Your task to perform on an android device: Is it going to rain this weekend? Image 0: 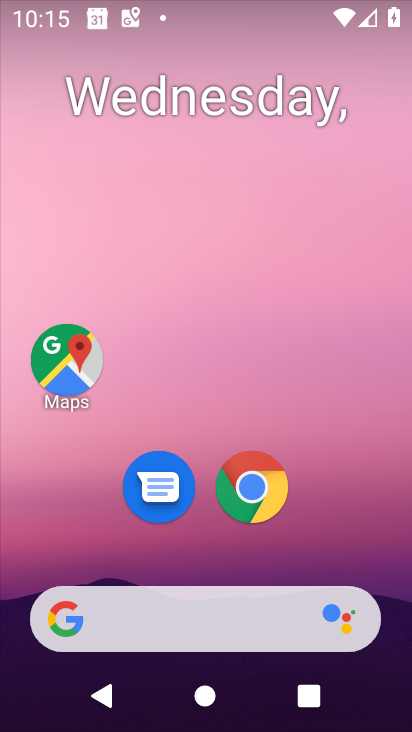
Step 0: click (236, 616)
Your task to perform on an android device: Is it going to rain this weekend? Image 1: 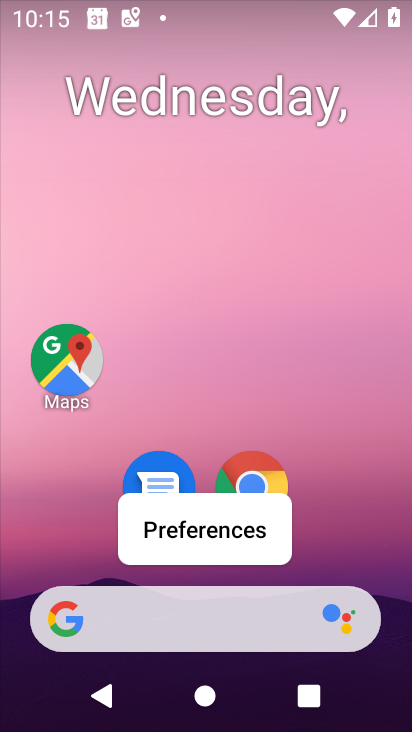
Step 1: click (236, 615)
Your task to perform on an android device: Is it going to rain this weekend? Image 2: 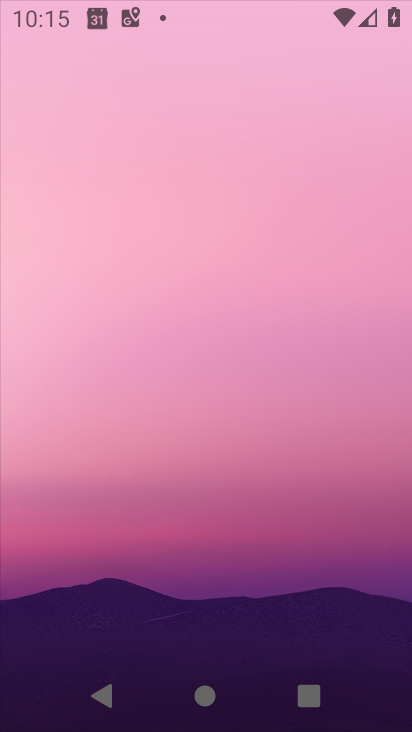
Step 2: click (204, 618)
Your task to perform on an android device: Is it going to rain this weekend? Image 3: 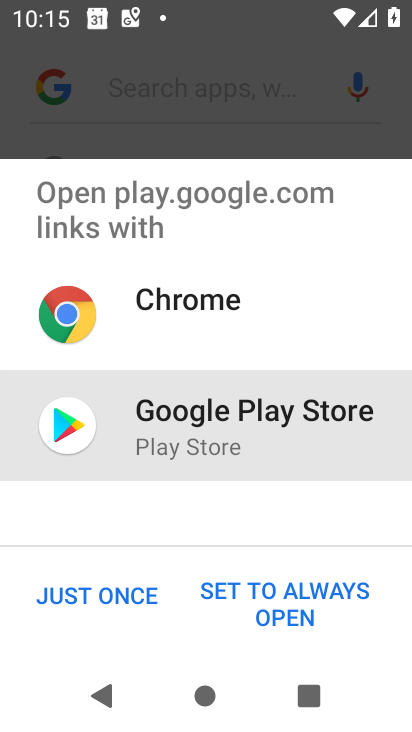
Step 3: press home button
Your task to perform on an android device: Is it going to rain this weekend? Image 4: 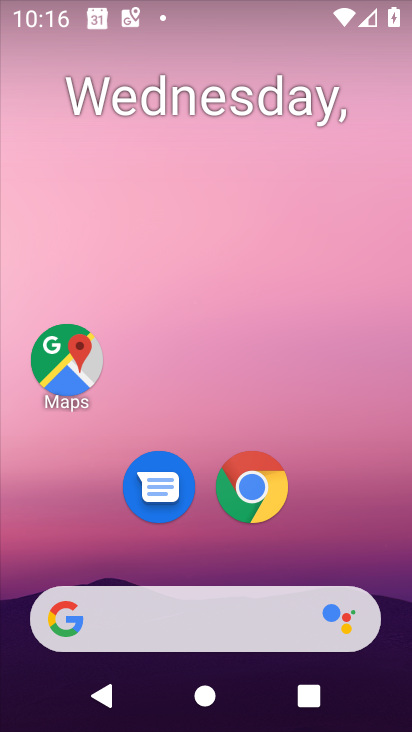
Step 4: click (122, 635)
Your task to perform on an android device: Is it going to rain this weekend? Image 5: 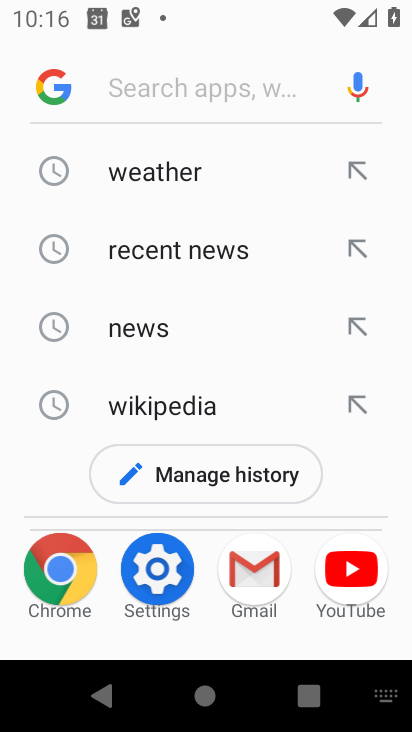
Step 5: type "Is it going to rain this weekend?"
Your task to perform on an android device: Is it going to rain this weekend? Image 6: 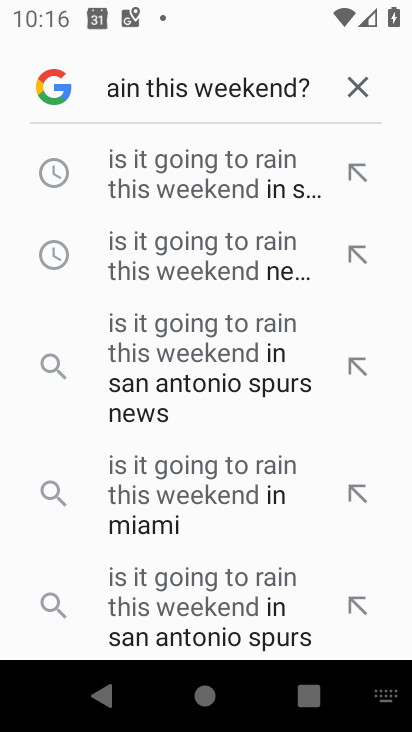
Step 6: click (227, 269)
Your task to perform on an android device: Is it going to rain this weekend? Image 7: 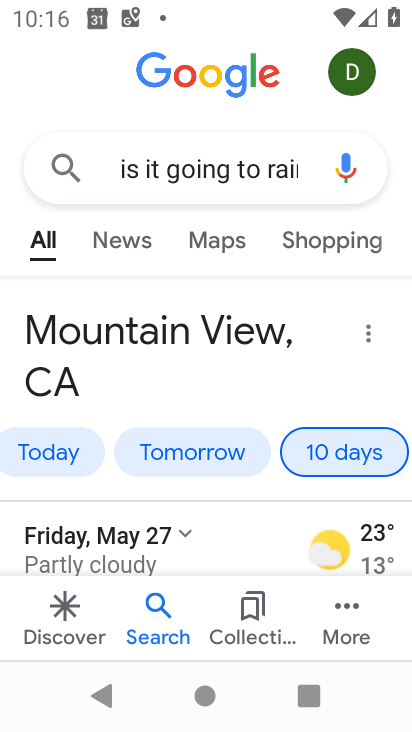
Step 7: task complete